Your task to perform on an android device: What is the recent news? Image 0: 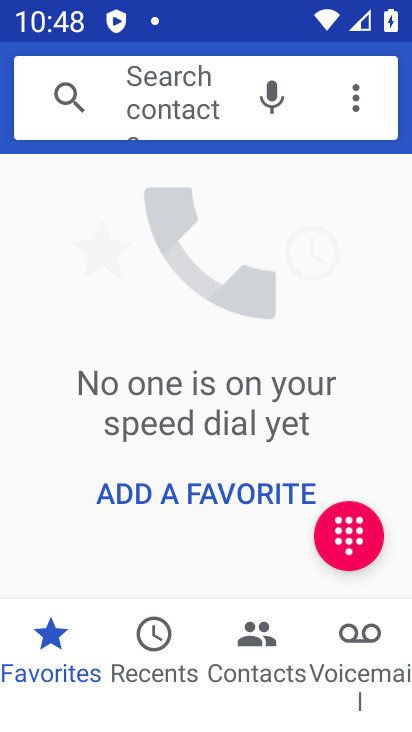
Step 0: press home button
Your task to perform on an android device: What is the recent news? Image 1: 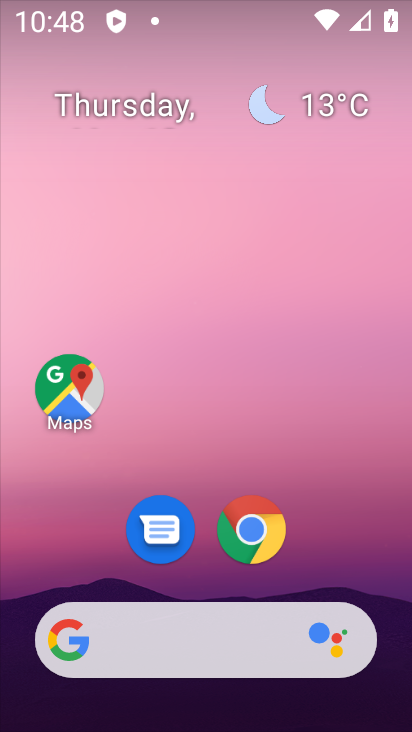
Step 1: click (174, 641)
Your task to perform on an android device: What is the recent news? Image 2: 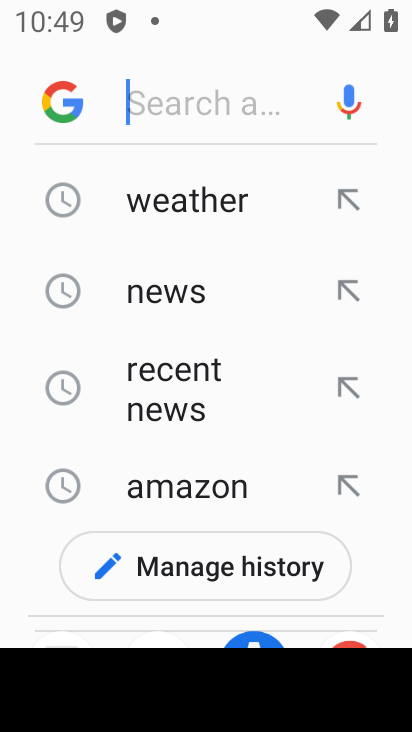
Step 2: type "what is the recent news"
Your task to perform on an android device: What is the recent news? Image 3: 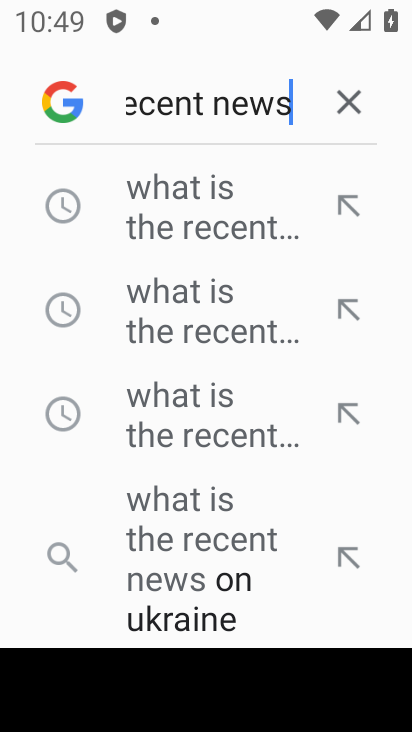
Step 3: click (197, 198)
Your task to perform on an android device: What is the recent news? Image 4: 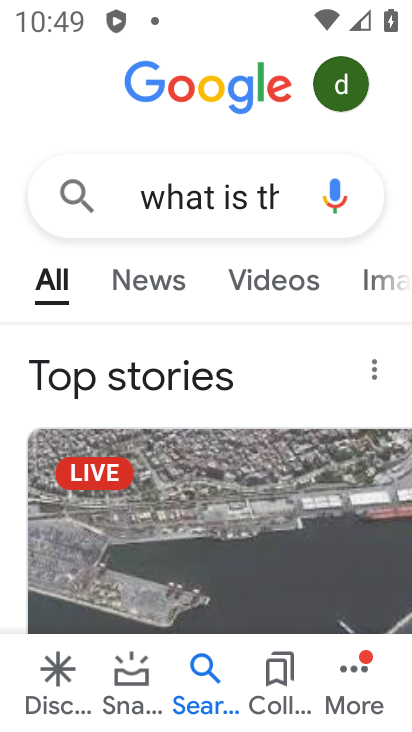
Step 4: click (128, 272)
Your task to perform on an android device: What is the recent news? Image 5: 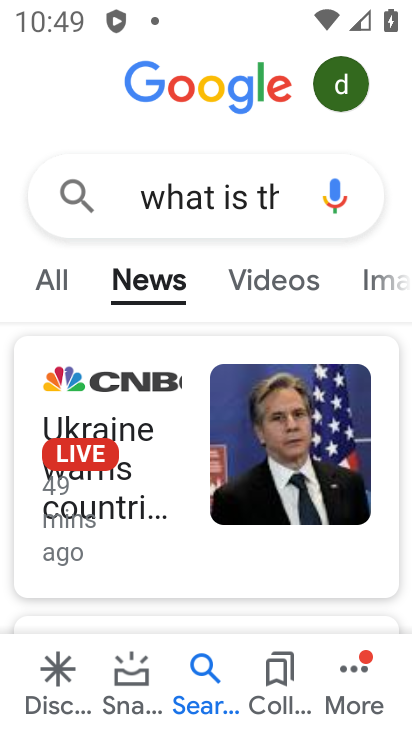
Step 5: task complete